Your task to perform on an android device: turn vacation reply on in the gmail app Image 0: 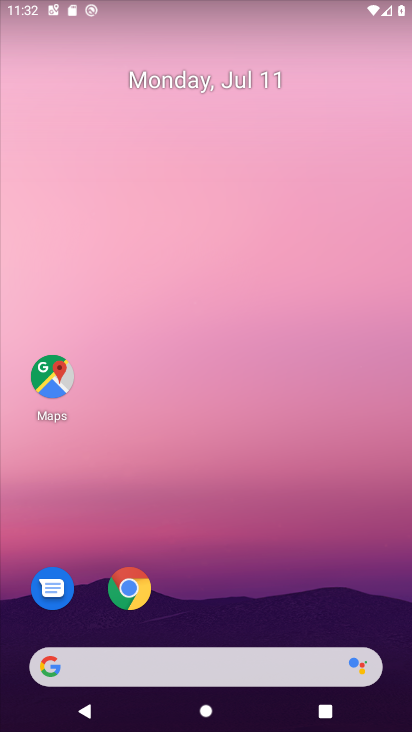
Step 0: drag from (269, 692) to (290, 308)
Your task to perform on an android device: turn vacation reply on in the gmail app Image 1: 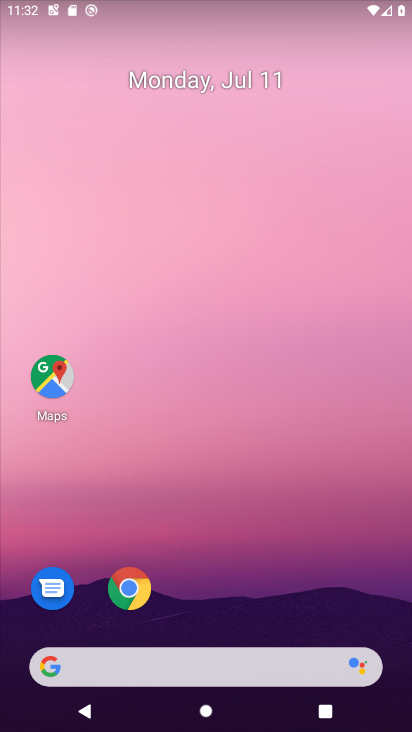
Step 1: drag from (246, 647) to (230, 129)
Your task to perform on an android device: turn vacation reply on in the gmail app Image 2: 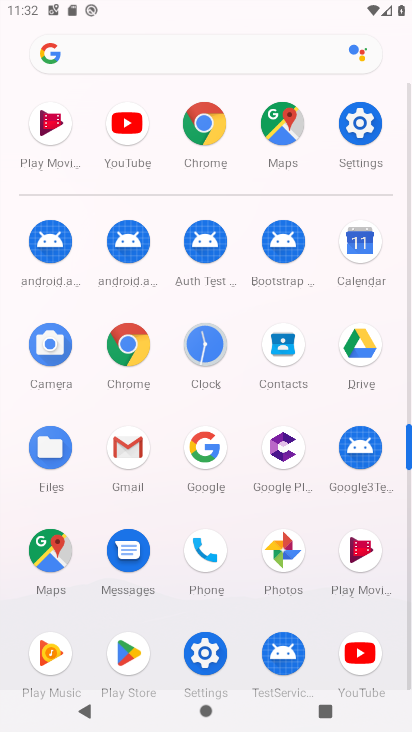
Step 2: click (141, 458)
Your task to perform on an android device: turn vacation reply on in the gmail app Image 3: 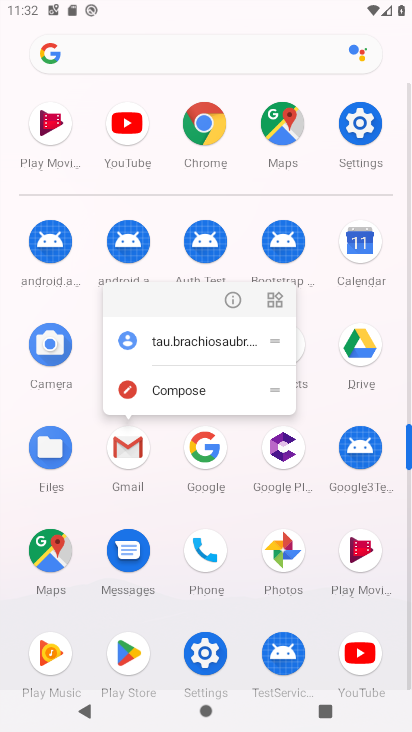
Step 3: click (139, 453)
Your task to perform on an android device: turn vacation reply on in the gmail app Image 4: 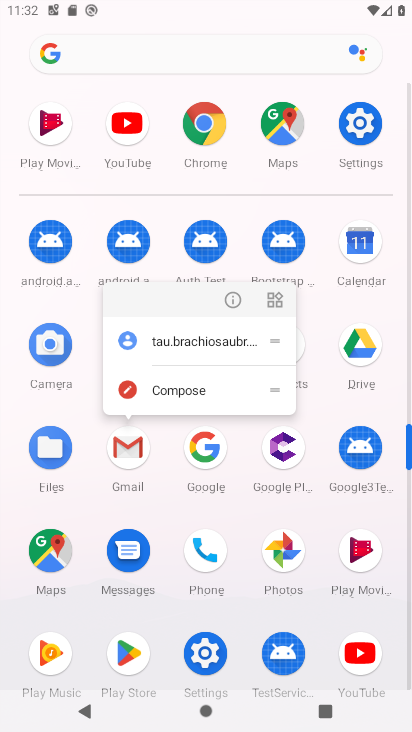
Step 4: click (140, 452)
Your task to perform on an android device: turn vacation reply on in the gmail app Image 5: 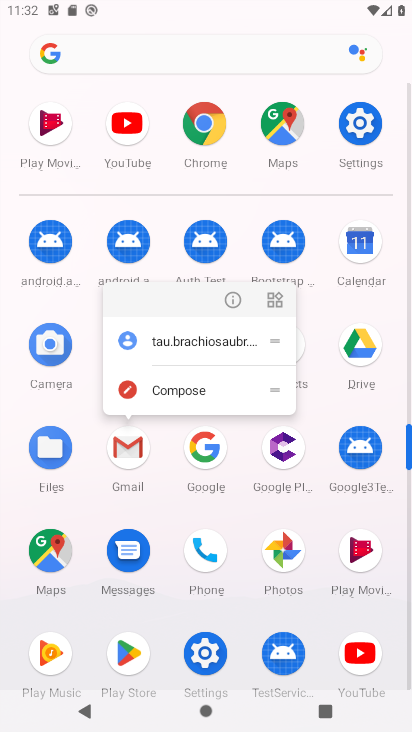
Step 5: click (141, 451)
Your task to perform on an android device: turn vacation reply on in the gmail app Image 6: 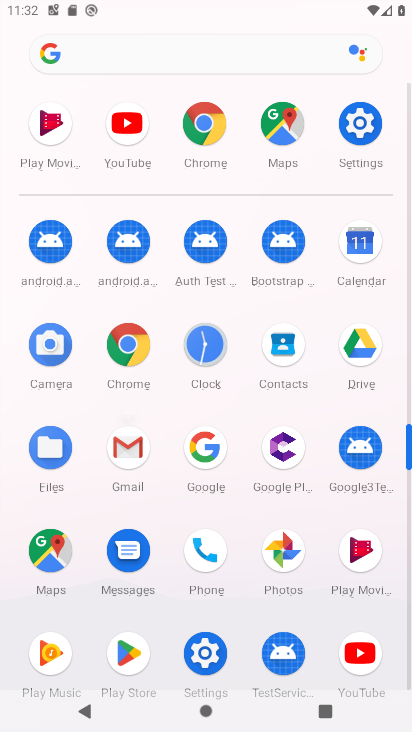
Step 6: click (143, 450)
Your task to perform on an android device: turn vacation reply on in the gmail app Image 7: 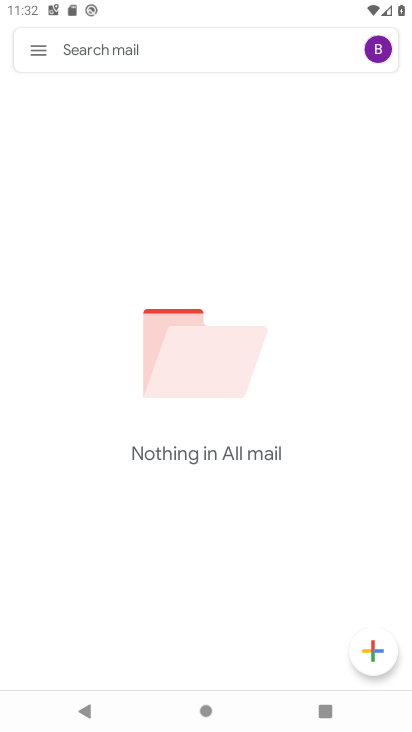
Step 7: click (35, 54)
Your task to perform on an android device: turn vacation reply on in the gmail app Image 8: 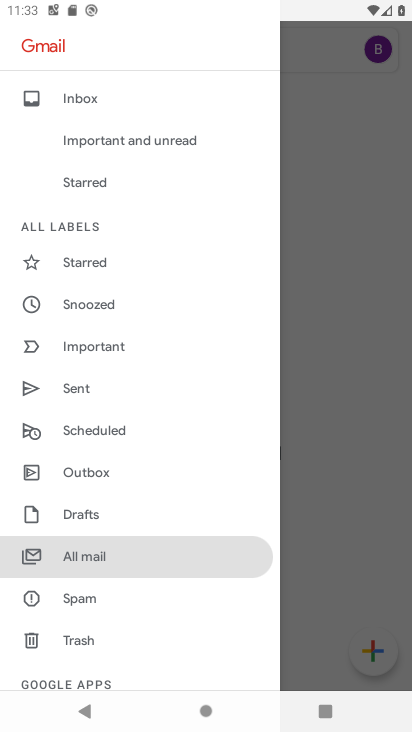
Step 8: drag from (100, 539) to (100, 289)
Your task to perform on an android device: turn vacation reply on in the gmail app Image 9: 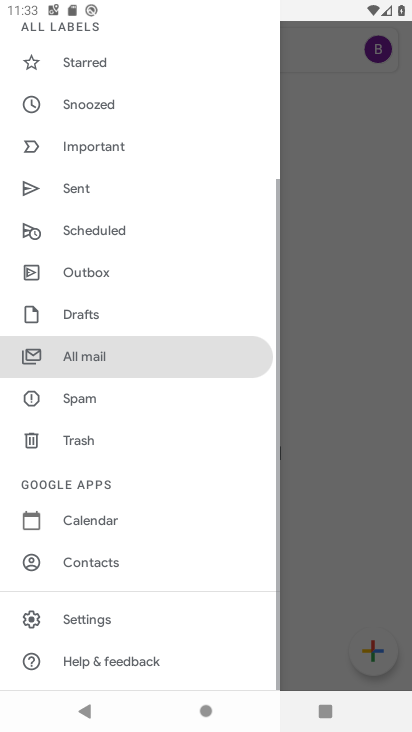
Step 9: drag from (113, 525) to (150, 266)
Your task to perform on an android device: turn vacation reply on in the gmail app Image 10: 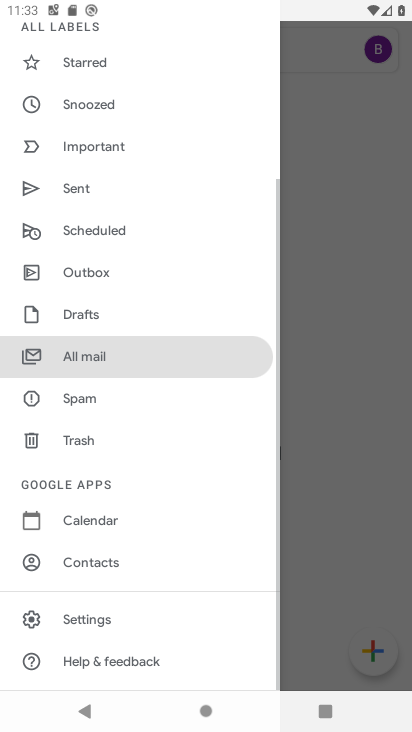
Step 10: click (86, 616)
Your task to perform on an android device: turn vacation reply on in the gmail app Image 11: 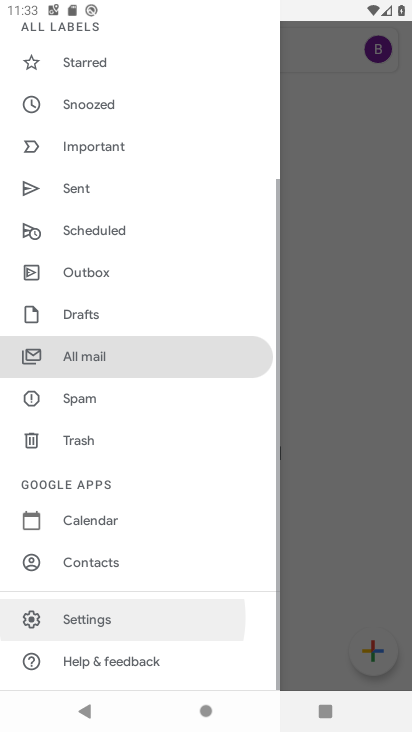
Step 11: click (87, 615)
Your task to perform on an android device: turn vacation reply on in the gmail app Image 12: 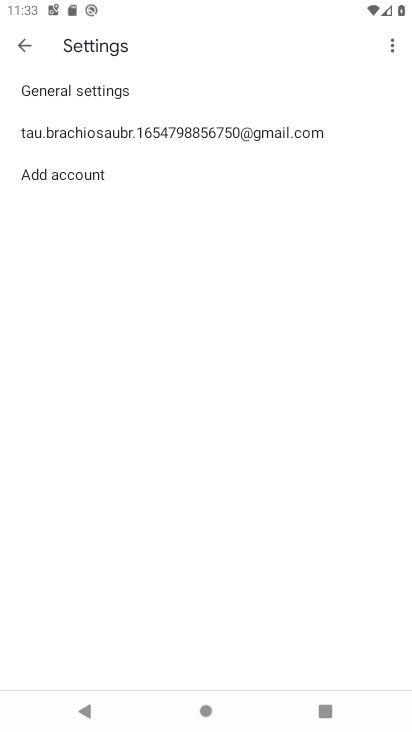
Step 12: click (77, 129)
Your task to perform on an android device: turn vacation reply on in the gmail app Image 13: 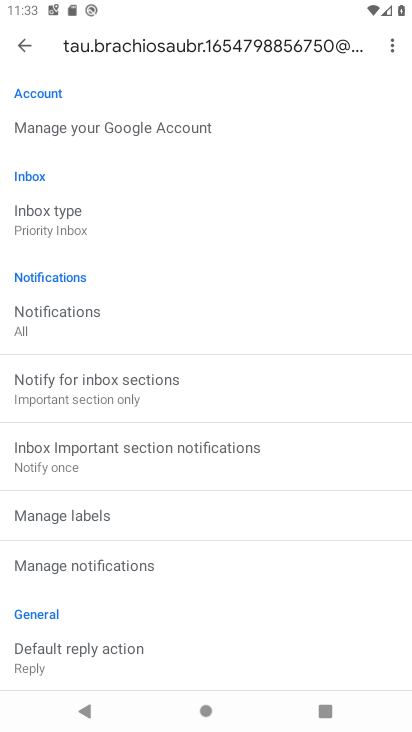
Step 13: drag from (70, 567) to (104, 288)
Your task to perform on an android device: turn vacation reply on in the gmail app Image 14: 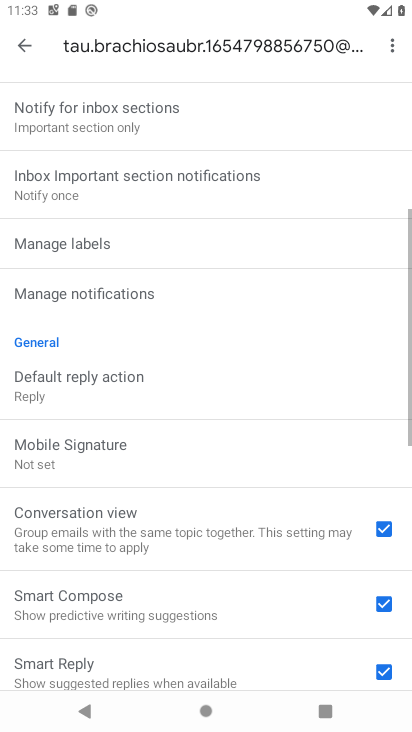
Step 14: drag from (156, 453) to (148, 153)
Your task to perform on an android device: turn vacation reply on in the gmail app Image 15: 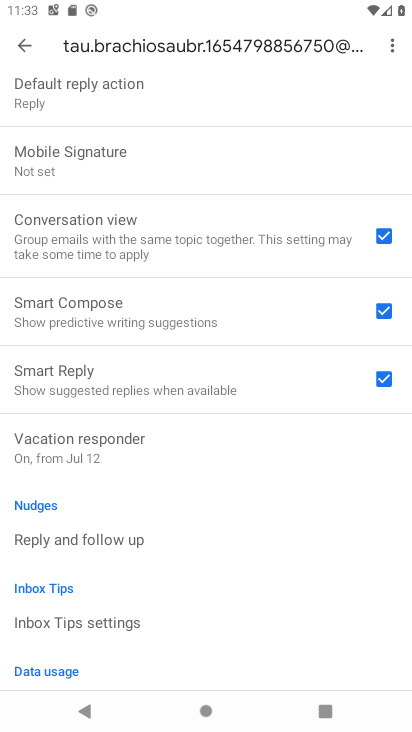
Step 15: click (72, 454)
Your task to perform on an android device: turn vacation reply on in the gmail app Image 16: 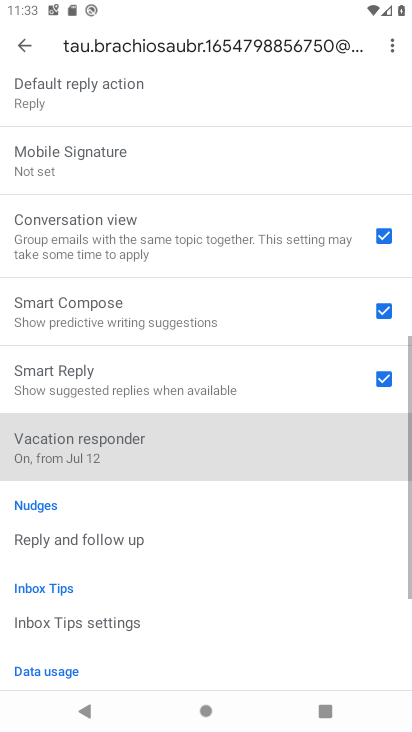
Step 16: click (72, 452)
Your task to perform on an android device: turn vacation reply on in the gmail app Image 17: 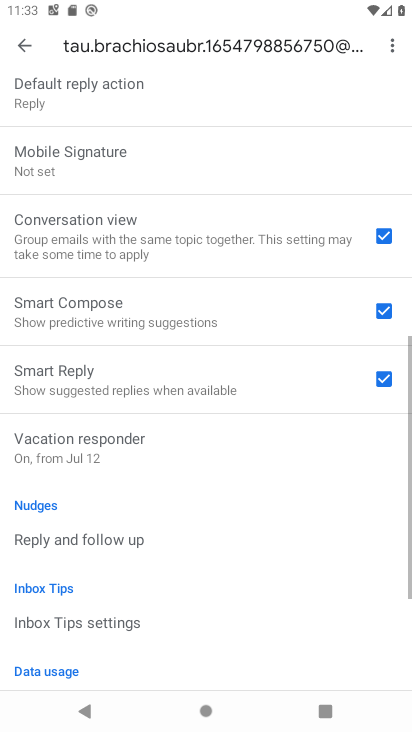
Step 17: click (72, 452)
Your task to perform on an android device: turn vacation reply on in the gmail app Image 18: 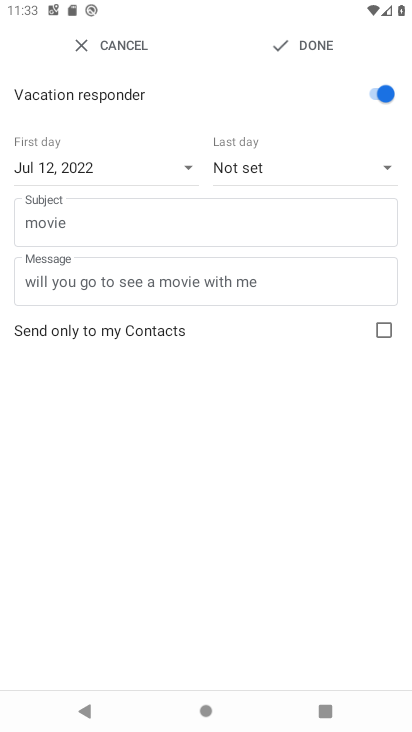
Step 18: task complete